Your task to perform on an android device: Show me productivity apps on the Play Store Image 0: 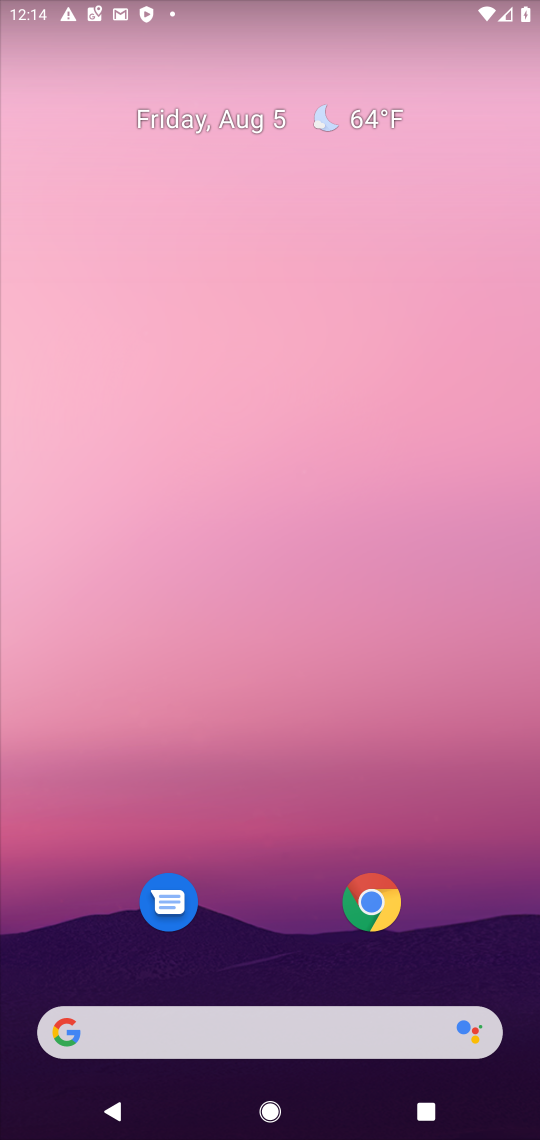
Step 0: press home button
Your task to perform on an android device: Show me productivity apps on the Play Store Image 1: 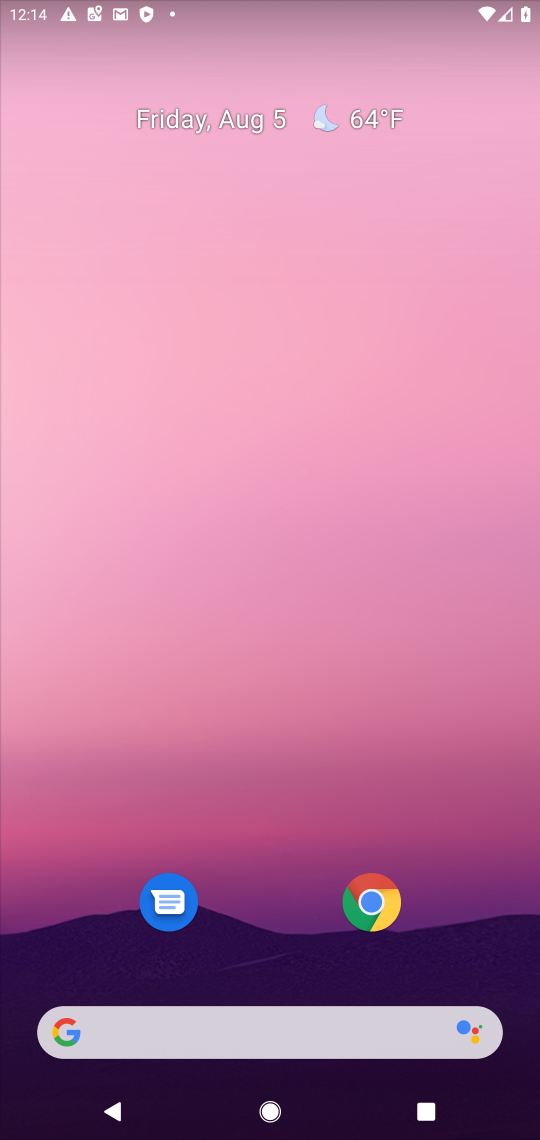
Step 1: drag from (266, 964) to (256, 217)
Your task to perform on an android device: Show me productivity apps on the Play Store Image 2: 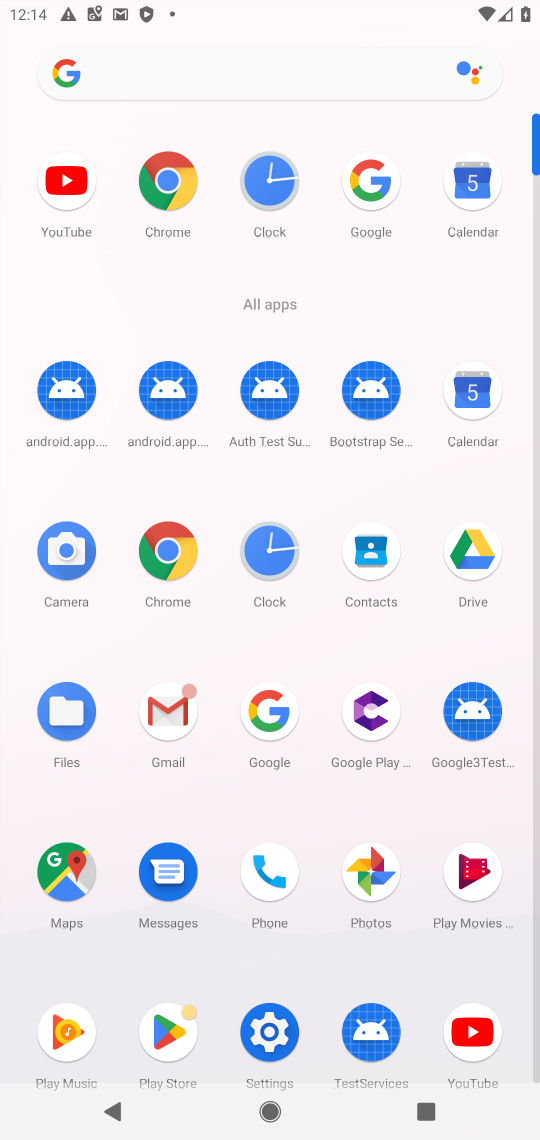
Step 2: click (158, 1022)
Your task to perform on an android device: Show me productivity apps on the Play Store Image 3: 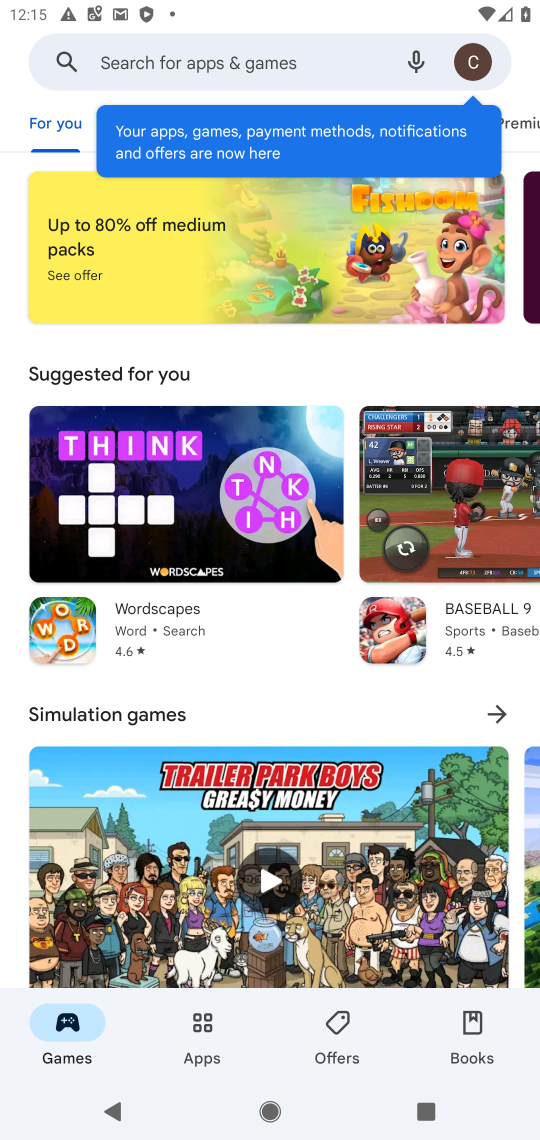
Step 3: click (208, 1022)
Your task to perform on an android device: Show me productivity apps on the Play Store Image 4: 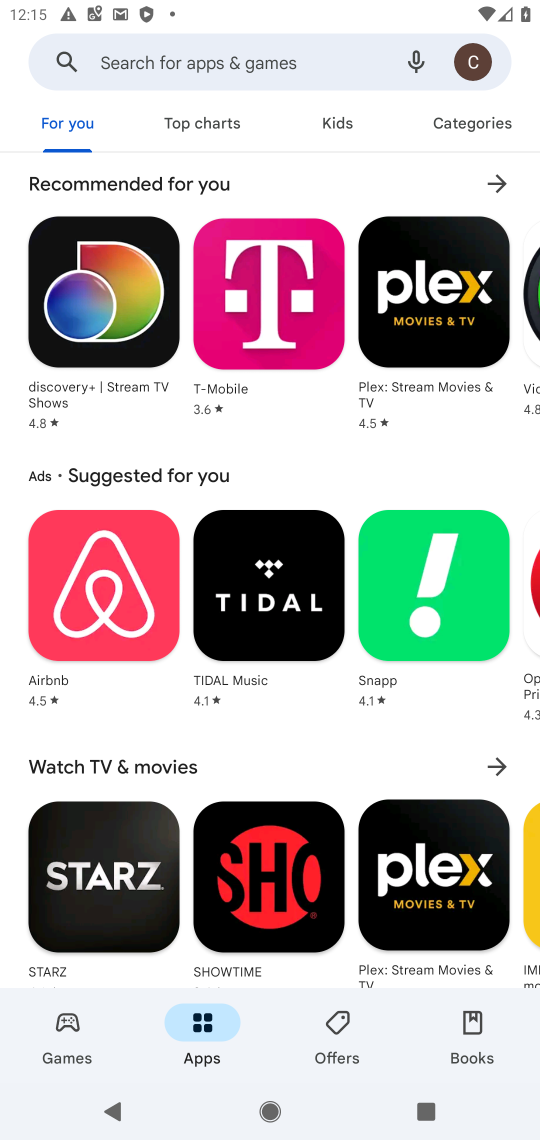
Step 4: click (148, 54)
Your task to perform on an android device: Show me productivity apps on the Play Store Image 5: 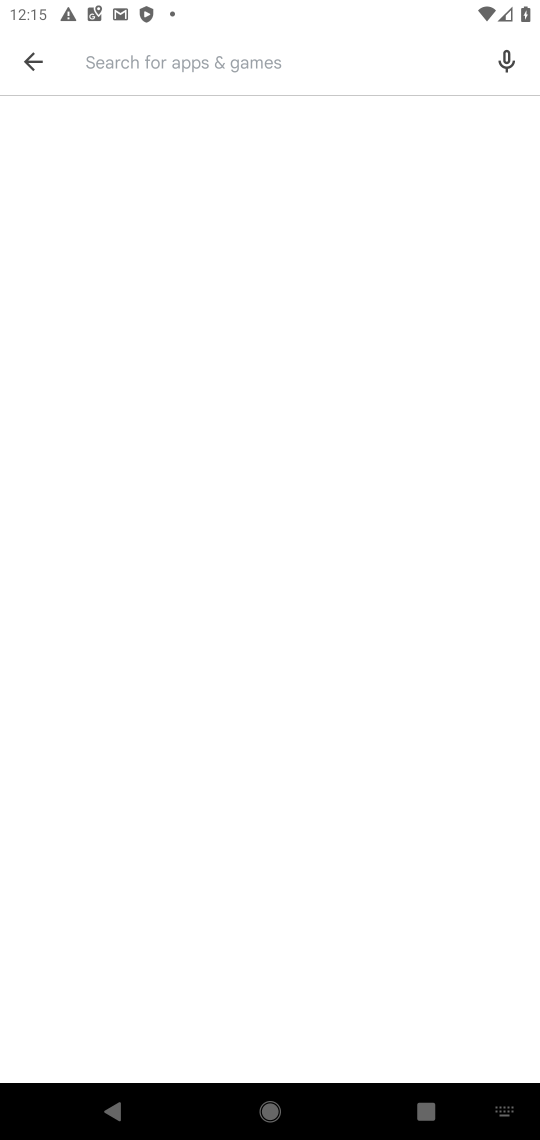
Step 5: click (29, 65)
Your task to perform on an android device: Show me productivity apps on the Play Store Image 6: 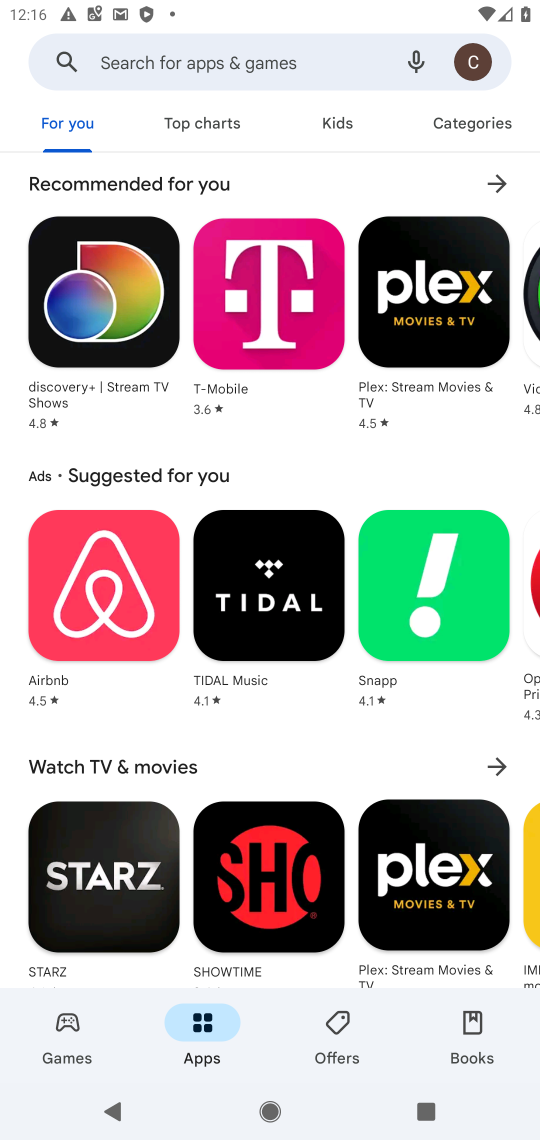
Step 6: click (454, 124)
Your task to perform on an android device: Show me productivity apps on the Play Store Image 7: 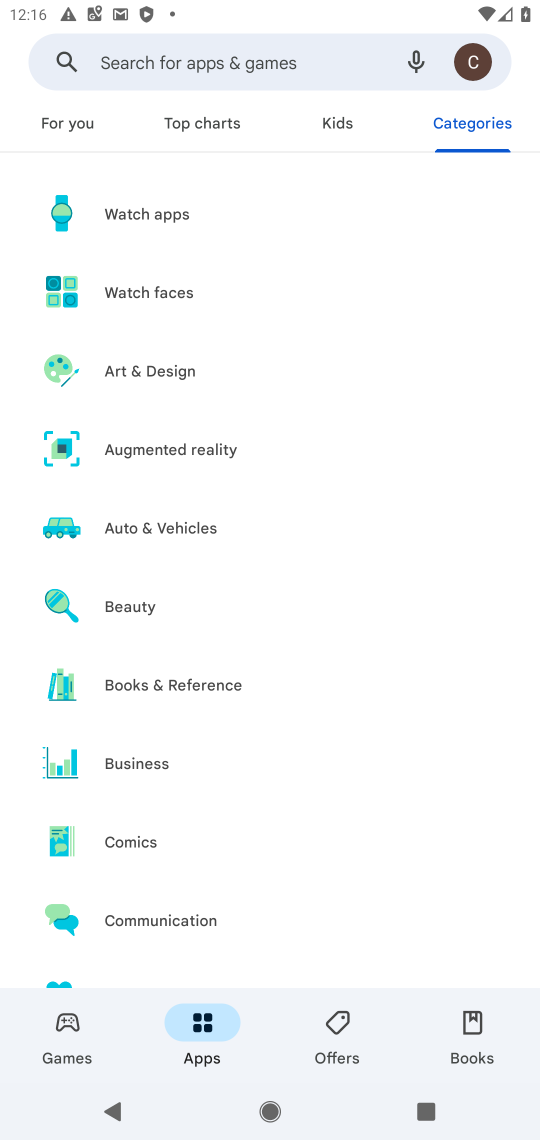
Step 7: drag from (290, 906) to (398, 241)
Your task to perform on an android device: Show me productivity apps on the Play Store Image 8: 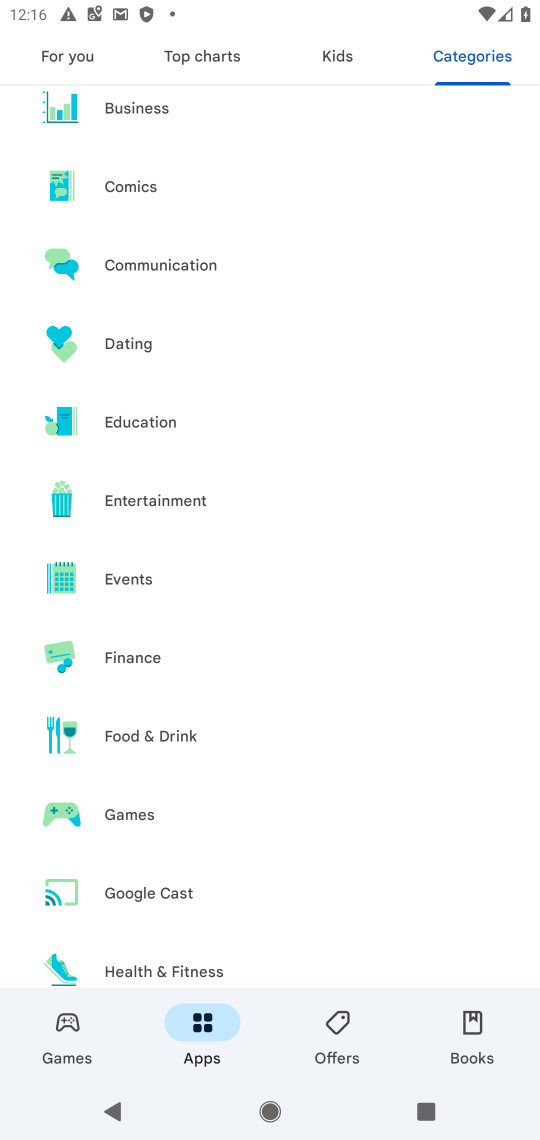
Step 8: drag from (297, 952) to (346, 85)
Your task to perform on an android device: Show me productivity apps on the Play Store Image 9: 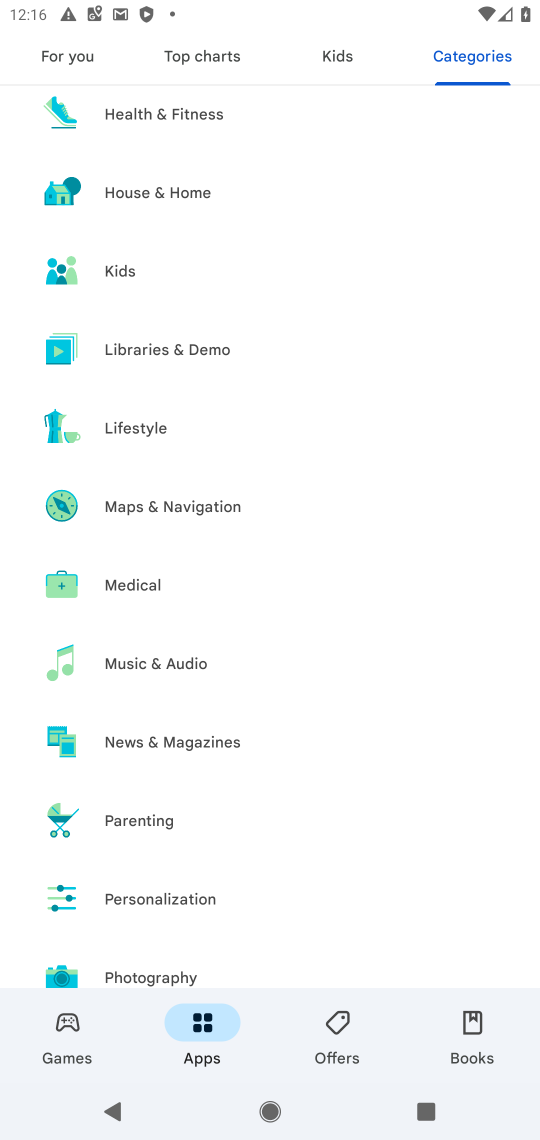
Step 9: drag from (237, 937) to (302, 332)
Your task to perform on an android device: Show me productivity apps on the Play Store Image 10: 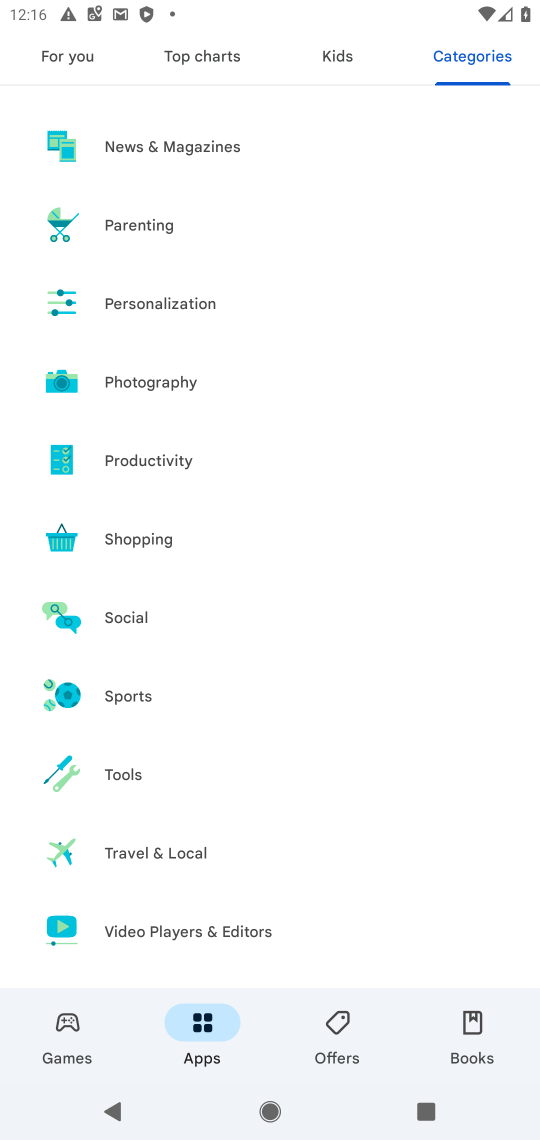
Step 10: click (205, 445)
Your task to perform on an android device: Show me productivity apps on the Play Store Image 11: 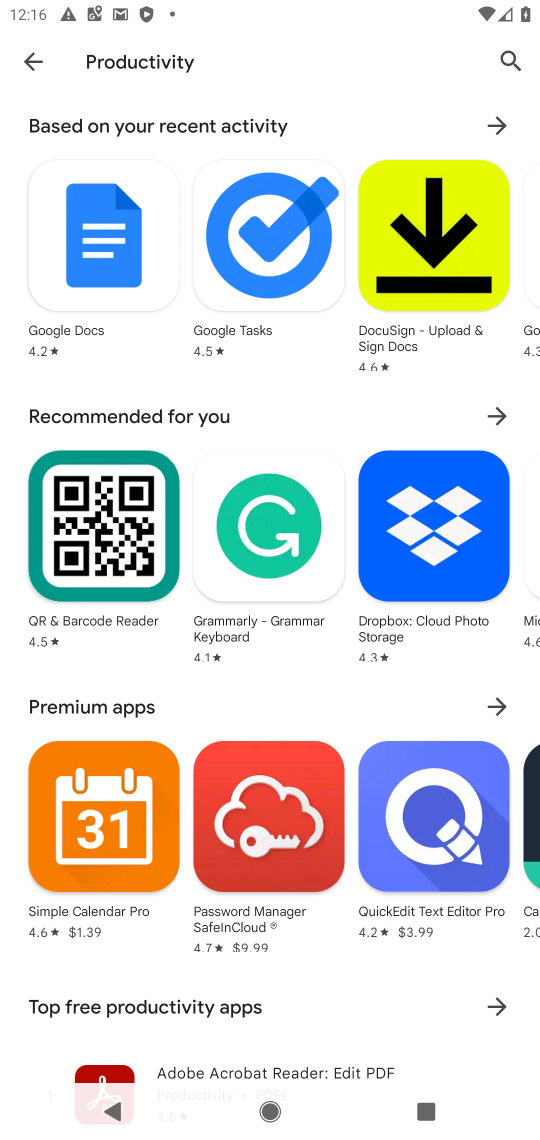
Step 11: task complete